Your task to perform on an android device: clear history in the chrome app Image 0: 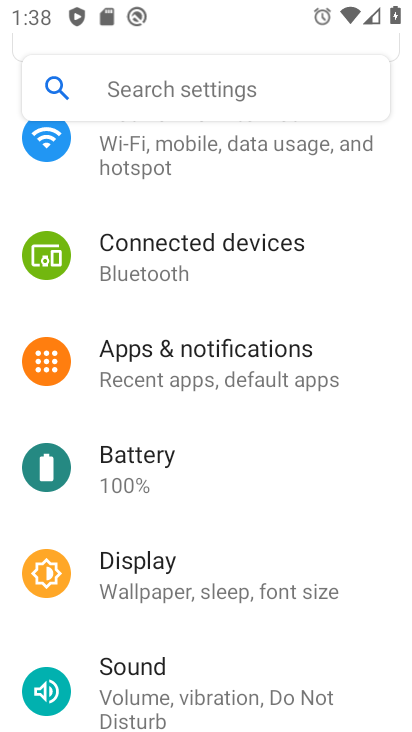
Step 0: press home button
Your task to perform on an android device: clear history in the chrome app Image 1: 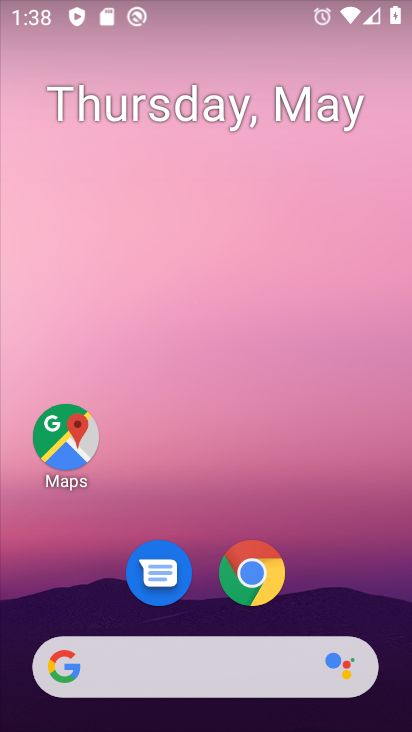
Step 1: click (249, 569)
Your task to perform on an android device: clear history in the chrome app Image 2: 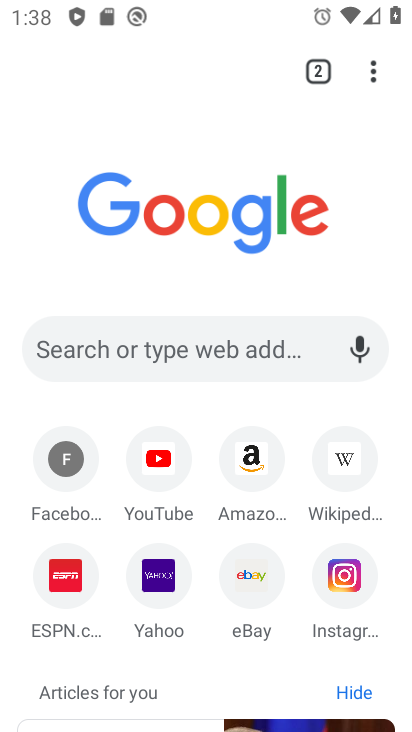
Step 2: click (368, 67)
Your task to perform on an android device: clear history in the chrome app Image 3: 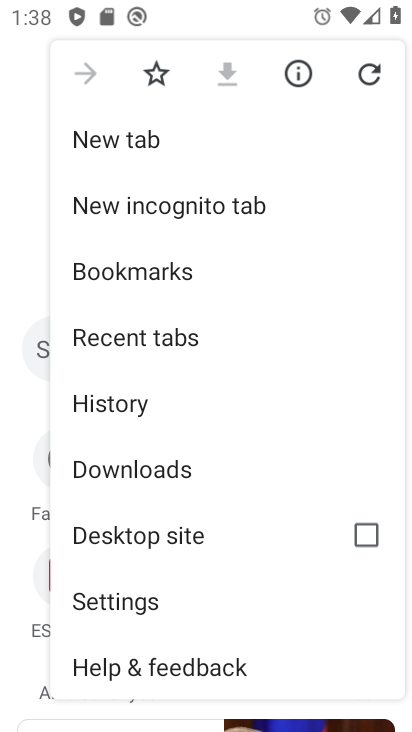
Step 3: click (108, 403)
Your task to perform on an android device: clear history in the chrome app Image 4: 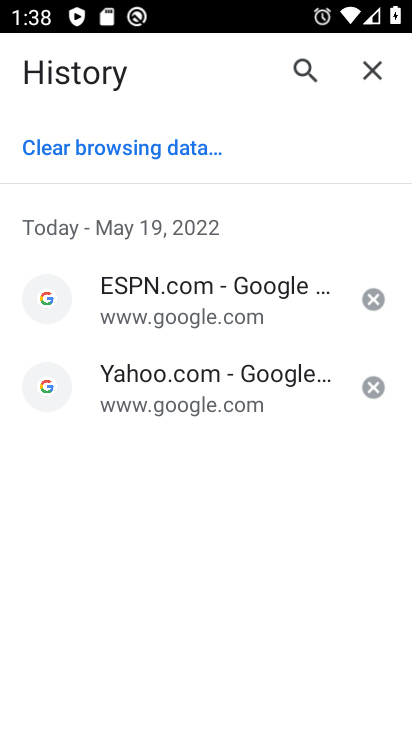
Step 4: click (141, 144)
Your task to perform on an android device: clear history in the chrome app Image 5: 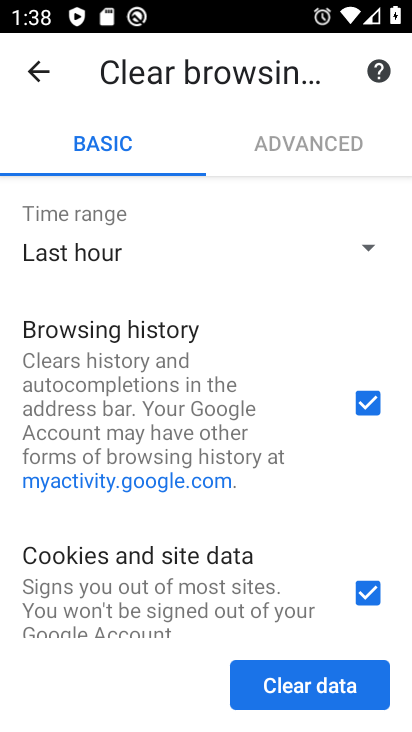
Step 5: click (302, 680)
Your task to perform on an android device: clear history in the chrome app Image 6: 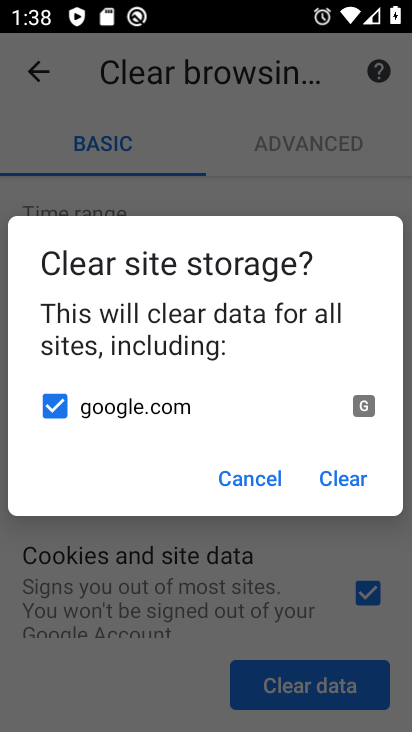
Step 6: click (335, 475)
Your task to perform on an android device: clear history in the chrome app Image 7: 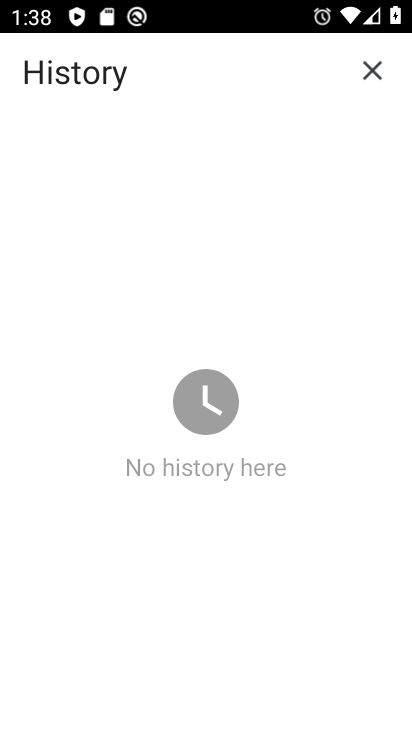
Step 7: task complete